Your task to perform on an android device: empty trash in google photos Image 0: 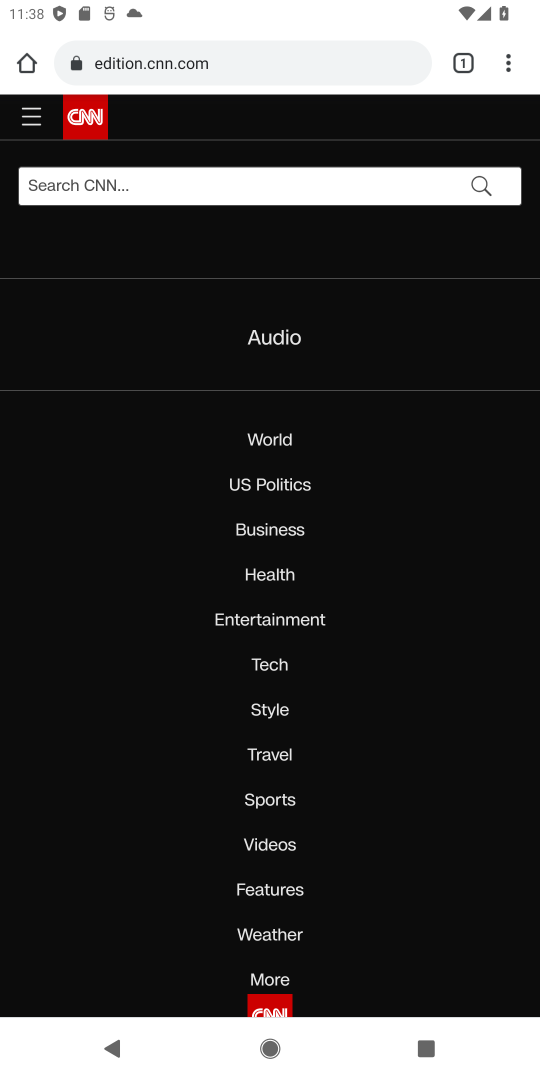
Step 0: press home button
Your task to perform on an android device: empty trash in google photos Image 1: 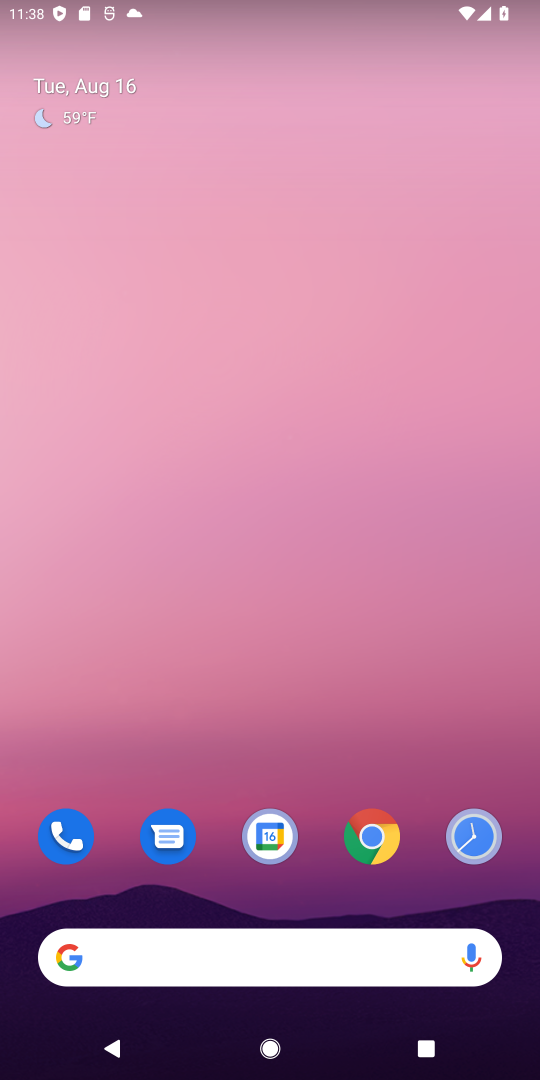
Step 1: drag from (220, 969) to (265, 163)
Your task to perform on an android device: empty trash in google photos Image 2: 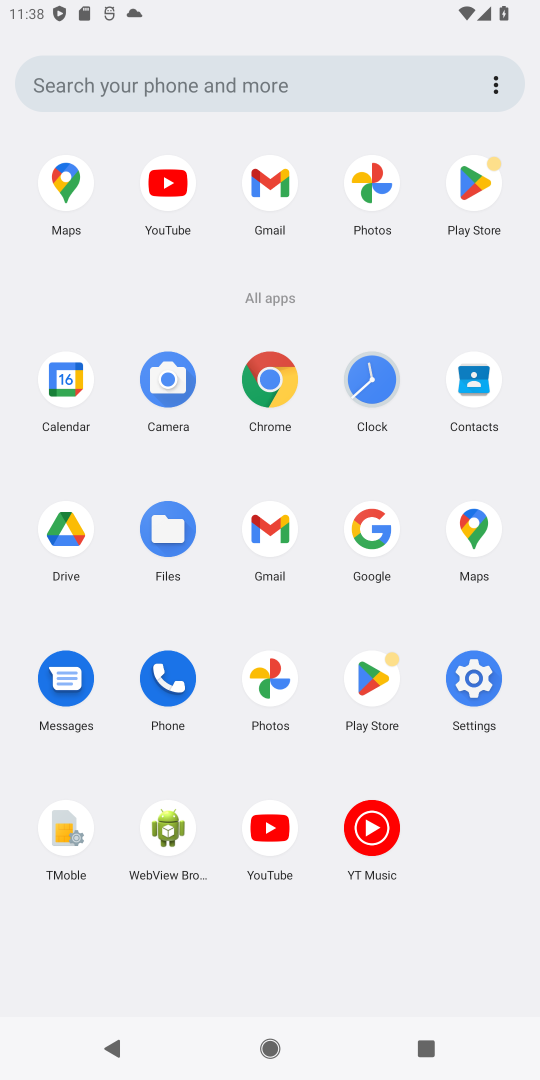
Step 2: click (269, 684)
Your task to perform on an android device: empty trash in google photos Image 3: 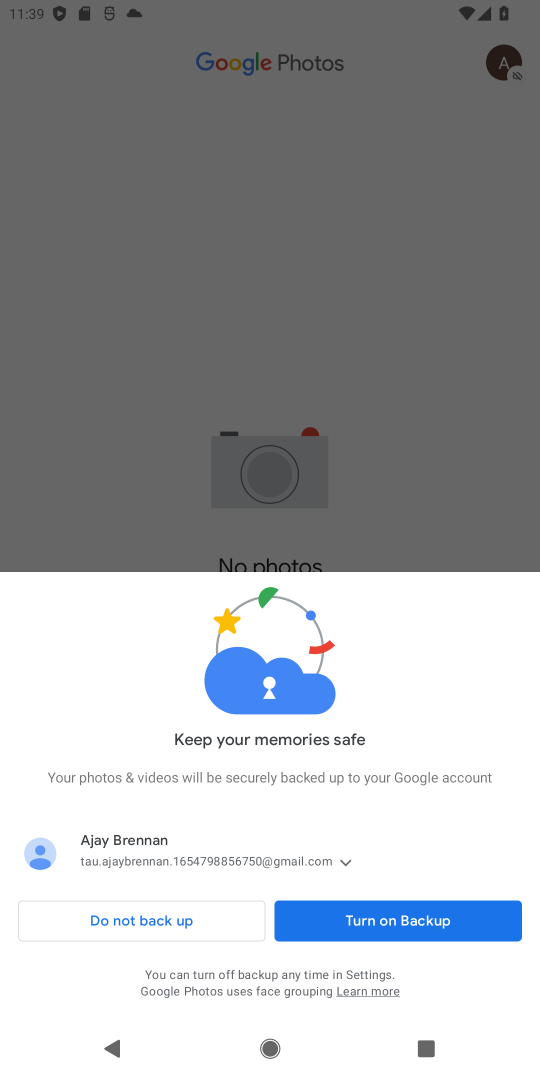
Step 3: click (208, 924)
Your task to perform on an android device: empty trash in google photos Image 4: 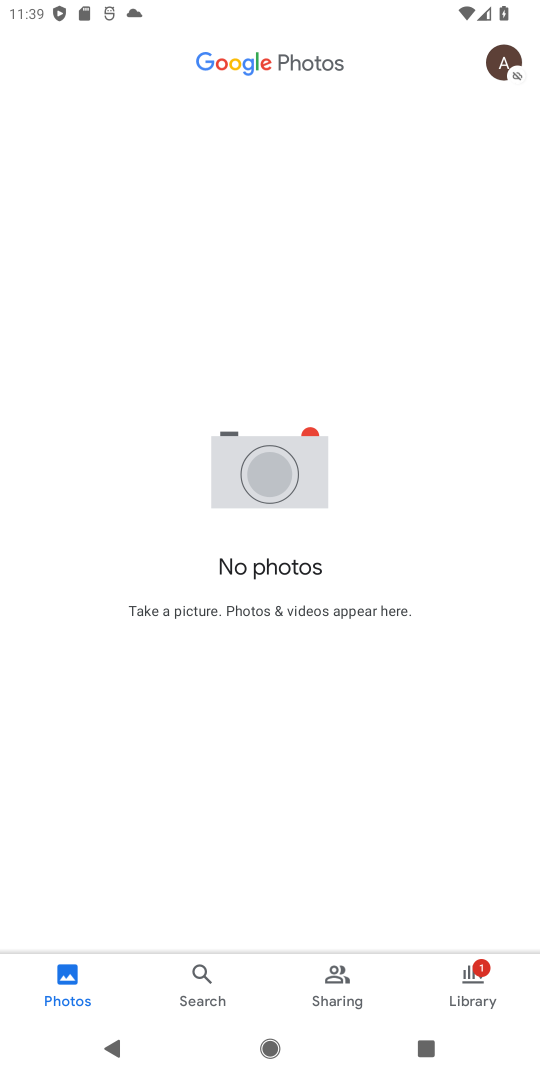
Step 4: click (478, 979)
Your task to perform on an android device: empty trash in google photos Image 5: 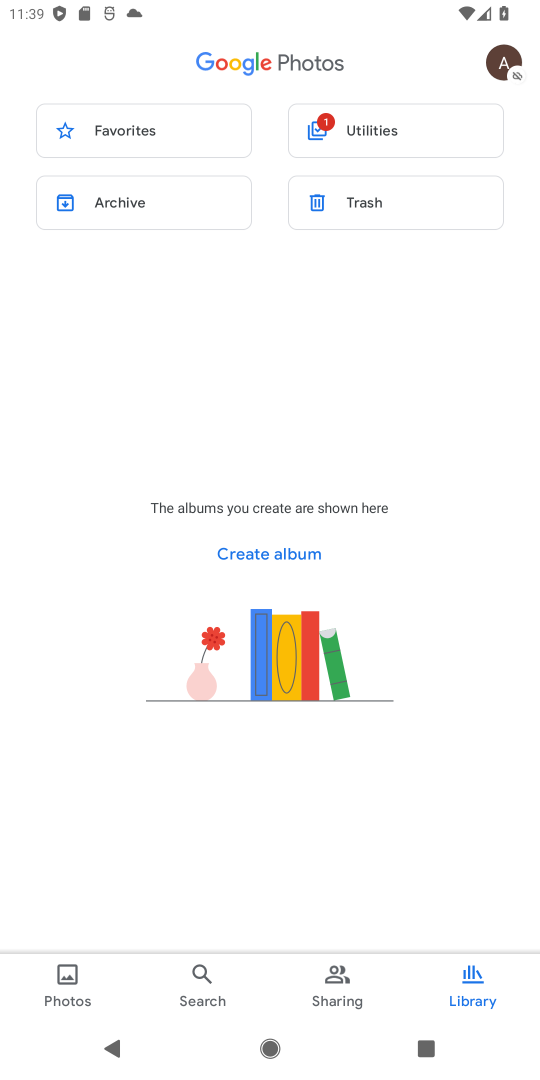
Step 5: click (368, 209)
Your task to perform on an android device: empty trash in google photos Image 6: 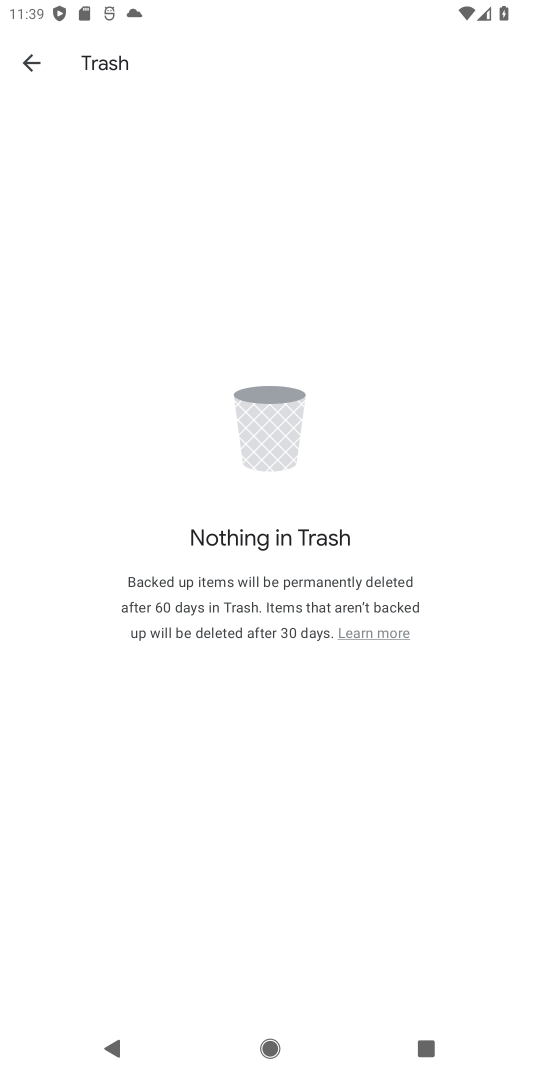
Step 6: task complete